Your task to perform on an android device: toggle translation in the chrome app Image 0: 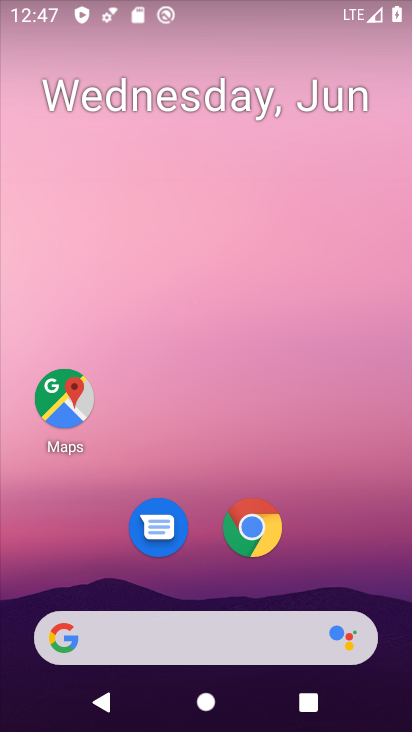
Step 0: drag from (231, 618) to (266, 366)
Your task to perform on an android device: toggle translation in the chrome app Image 1: 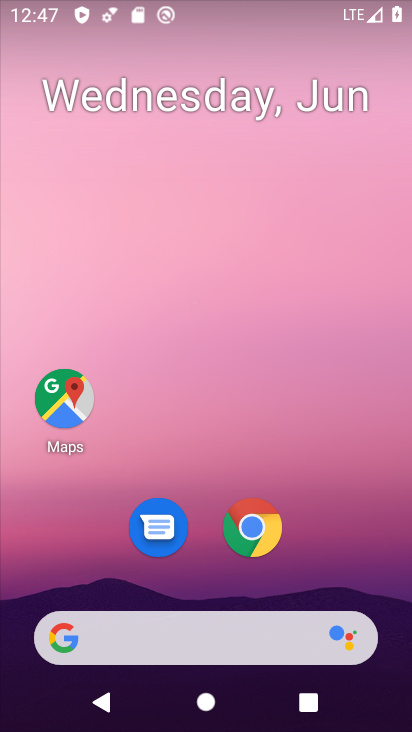
Step 1: click (268, 539)
Your task to perform on an android device: toggle translation in the chrome app Image 2: 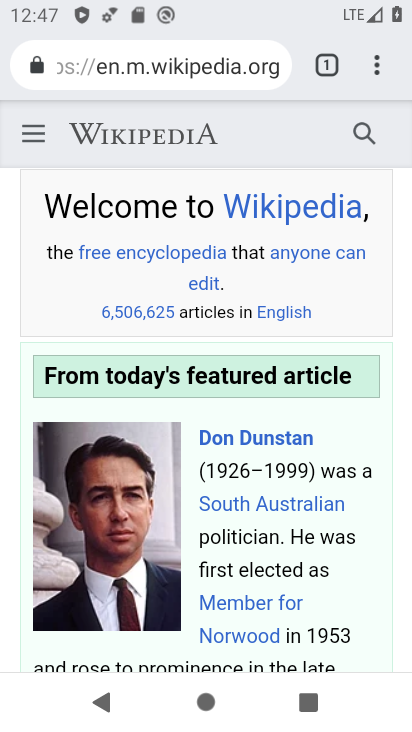
Step 2: drag from (375, 74) to (172, 581)
Your task to perform on an android device: toggle translation in the chrome app Image 3: 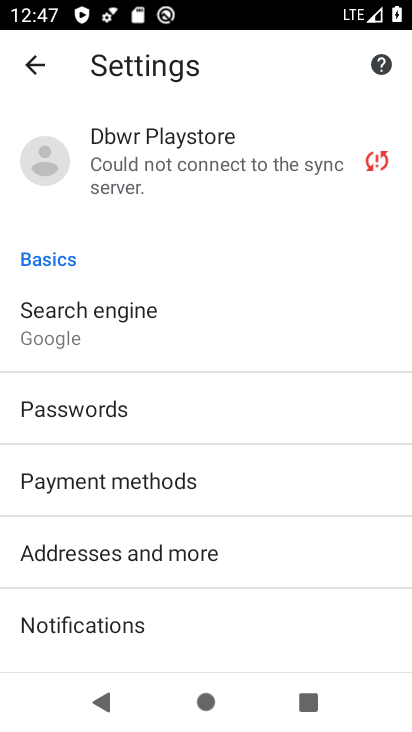
Step 3: drag from (228, 594) to (215, 8)
Your task to perform on an android device: toggle translation in the chrome app Image 4: 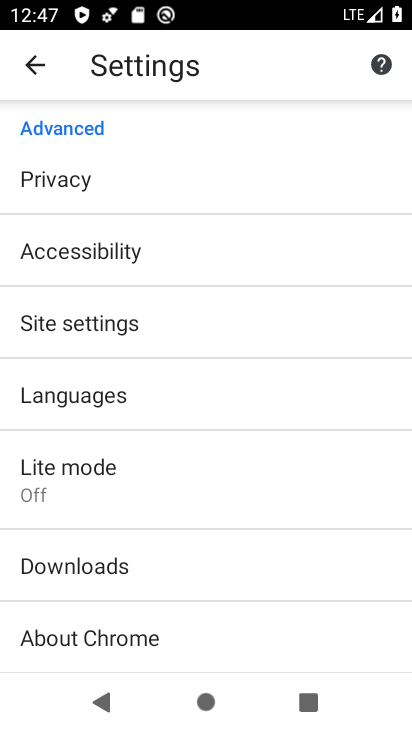
Step 4: click (139, 406)
Your task to perform on an android device: toggle translation in the chrome app Image 5: 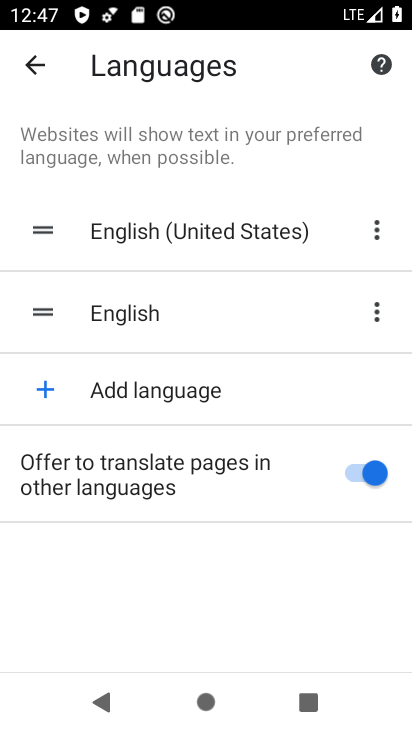
Step 5: click (369, 469)
Your task to perform on an android device: toggle translation in the chrome app Image 6: 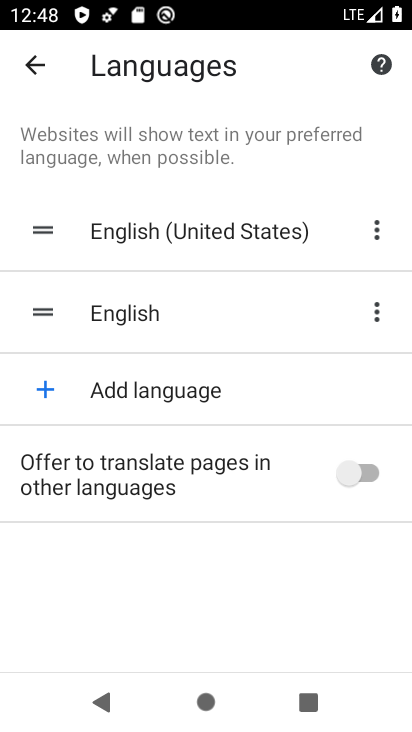
Step 6: task complete